Your task to perform on an android device: open a bookmark in the chrome app Image 0: 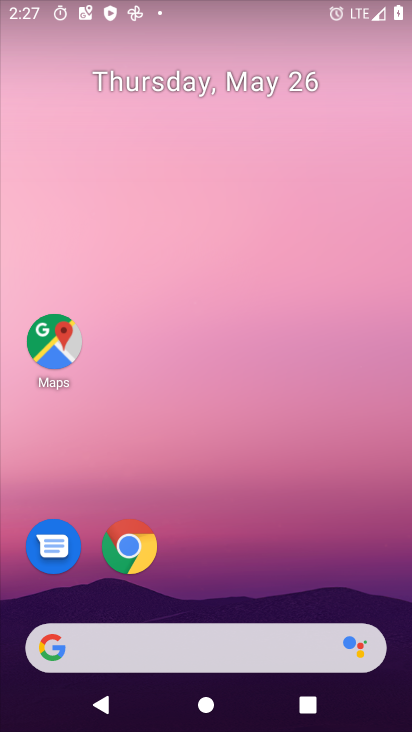
Step 0: click (131, 546)
Your task to perform on an android device: open a bookmark in the chrome app Image 1: 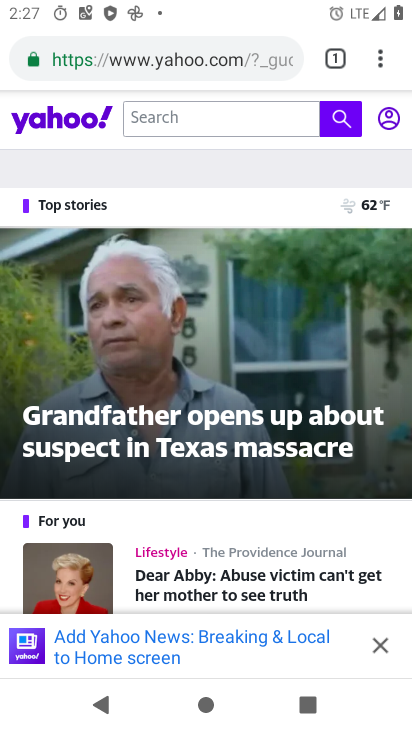
Step 1: click (371, 59)
Your task to perform on an android device: open a bookmark in the chrome app Image 2: 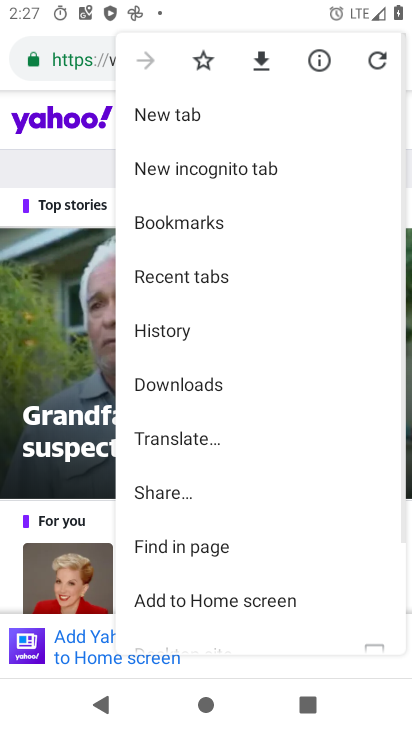
Step 2: click (179, 219)
Your task to perform on an android device: open a bookmark in the chrome app Image 3: 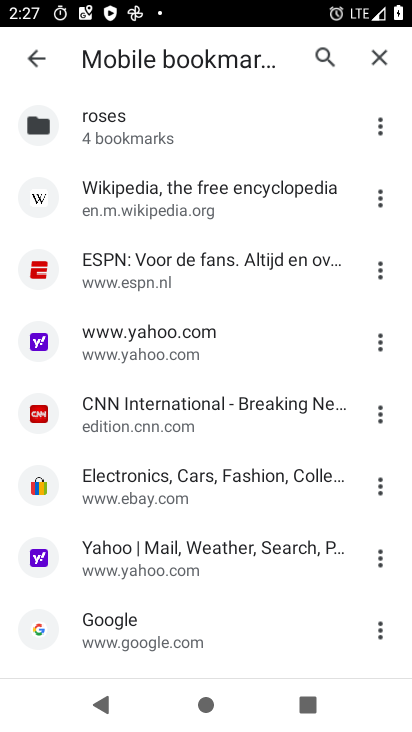
Step 3: click (133, 353)
Your task to perform on an android device: open a bookmark in the chrome app Image 4: 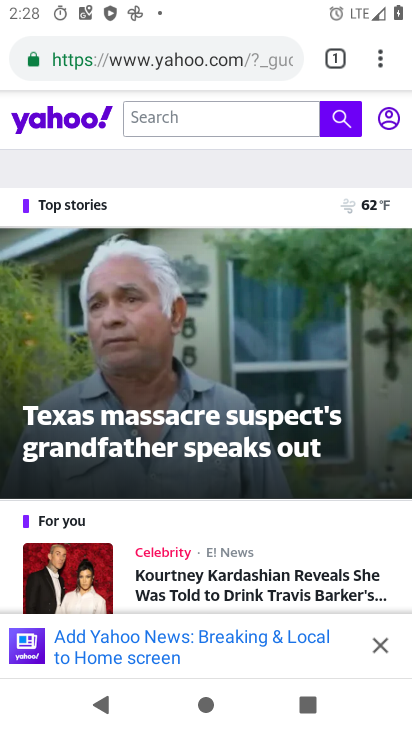
Step 4: task complete